Your task to perform on an android device: set an alarm Image 0: 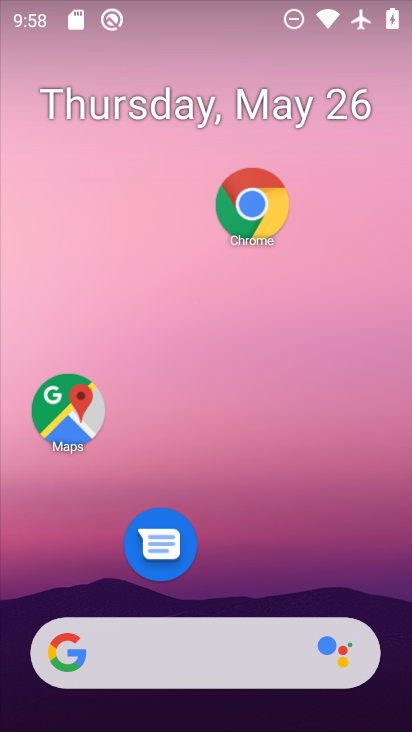
Step 0: press home button
Your task to perform on an android device: set an alarm Image 1: 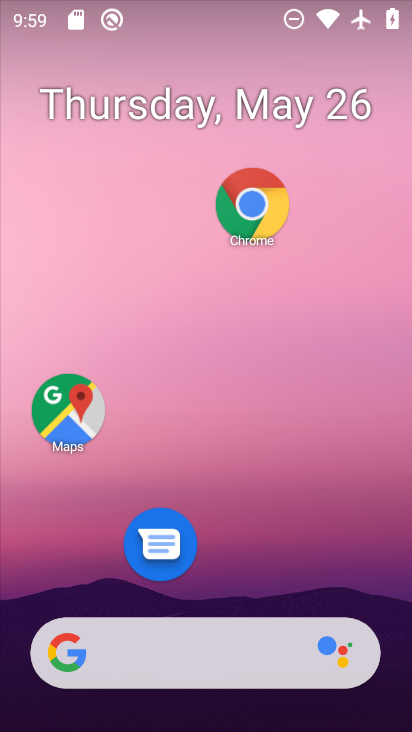
Step 1: drag from (224, 585) to (271, 120)
Your task to perform on an android device: set an alarm Image 2: 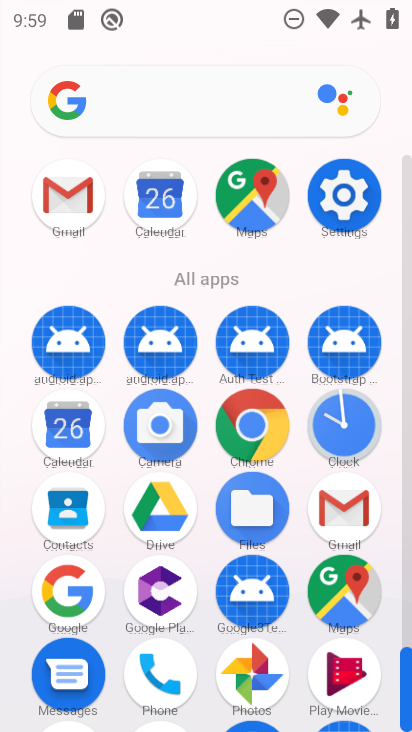
Step 2: click (344, 415)
Your task to perform on an android device: set an alarm Image 3: 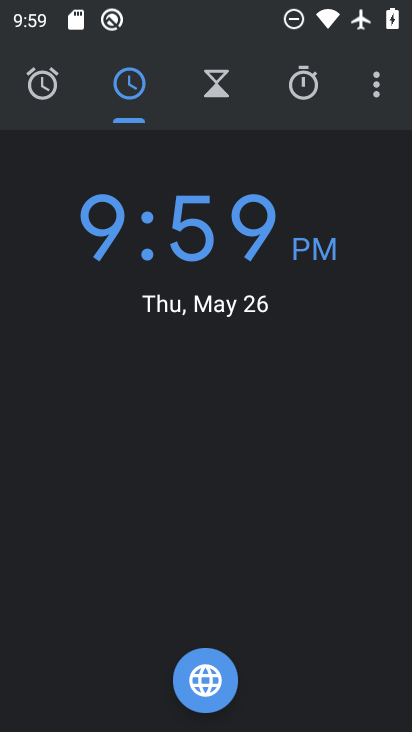
Step 3: click (40, 81)
Your task to perform on an android device: set an alarm Image 4: 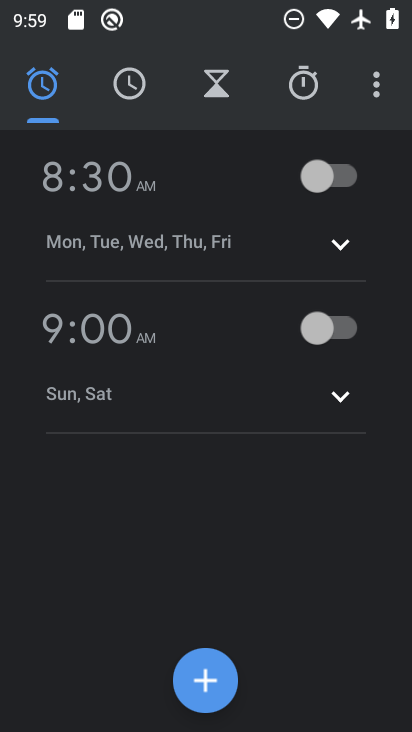
Step 4: click (327, 173)
Your task to perform on an android device: set an alarm Image 5: 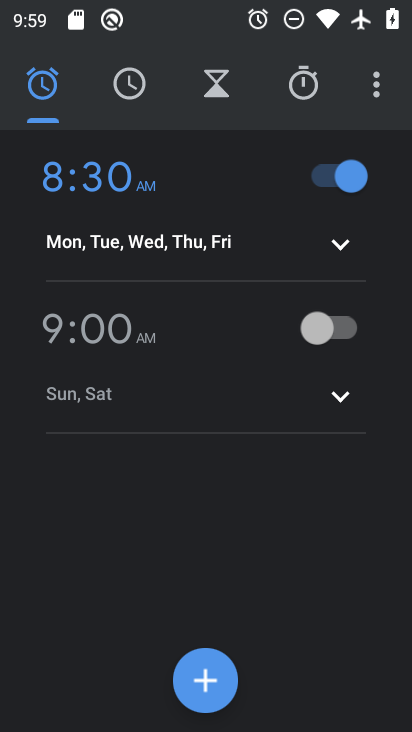
Step 5: click (337, 331)
Your task to perform on an android device: set an alarm Image 6: 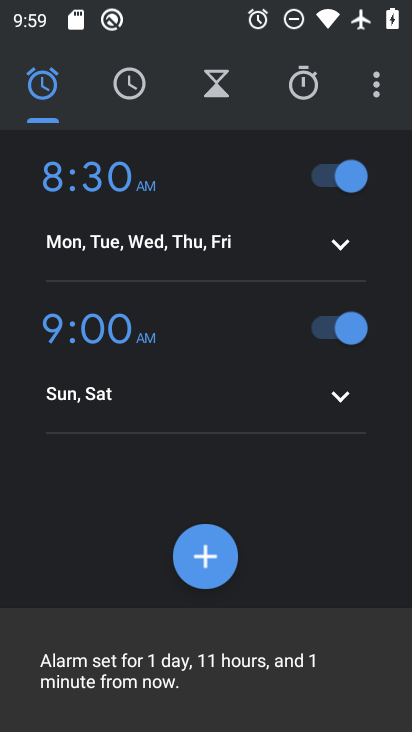
Step 6: task complete